Your task to perform on an android device: turn off wifi Image 0: 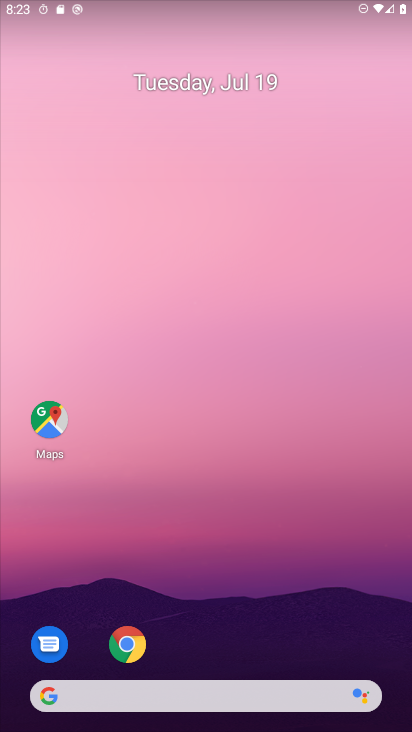
Step 0: drag from (28, 720) to (148, 194)
Your task to perform on an android device: turn off wifi Image 1: 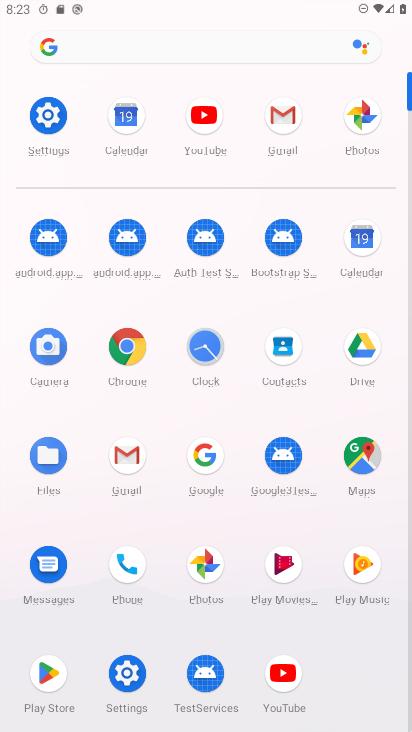
Step 1: click (128, 671)
Your task to perform on an android device: turn off wifi Image 2: 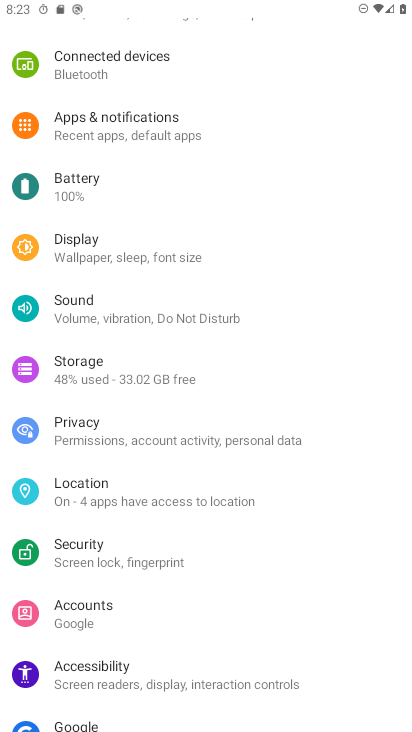
Step 2: drag from (234, 88) to (313, 607)
Your task to perform on an android device: turn off wifi Image 3: 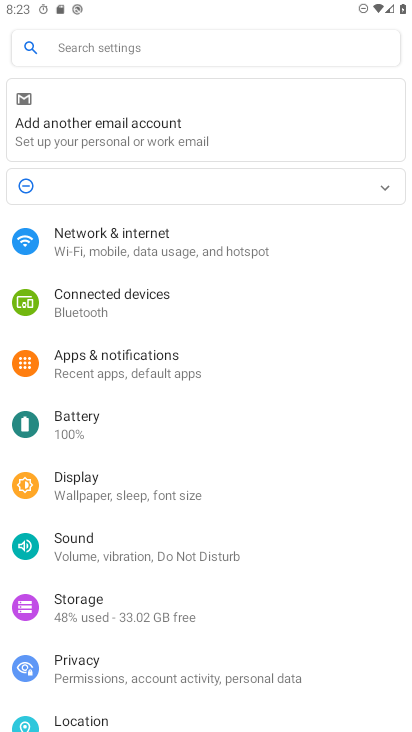
Step 3: click (134, 234)
Your task to perform on an android device: turn off wifi Image 4: 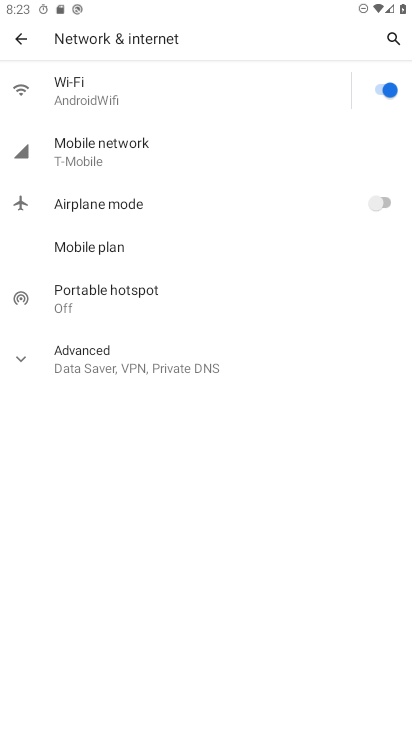
Step 4: click (394, 91)
Your task to perform on an android device: turn off wifi Image 5: 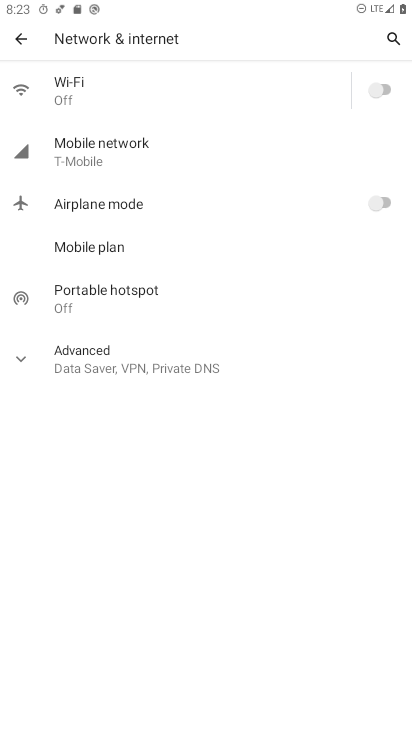
Step 5: task complete